Your task to perform on an android device: Go to wifi settings Image 0: 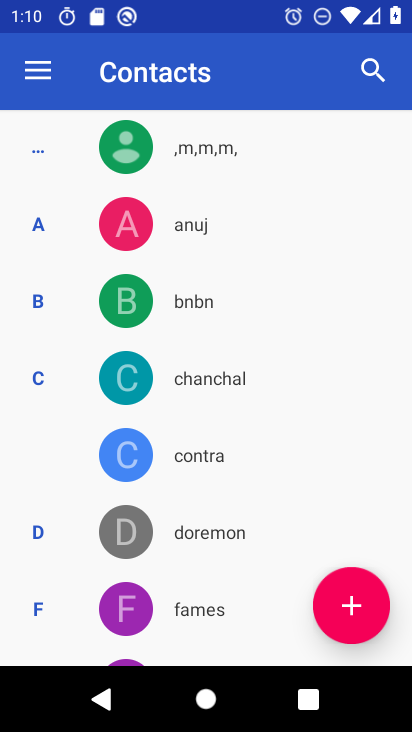
Step 0: press home button
Your task to perform on an android device: Go to wifi settings Image 1: 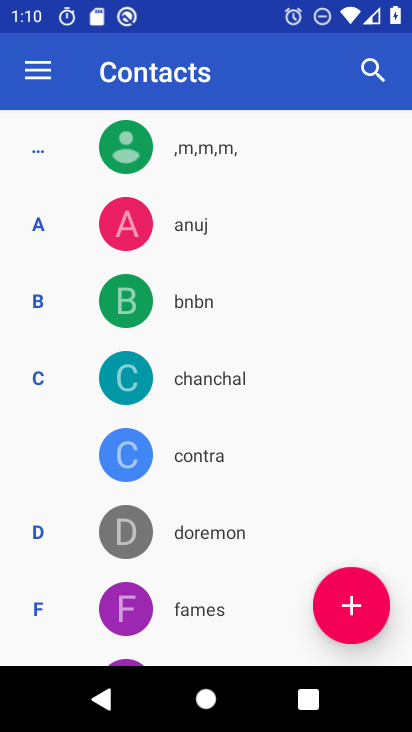
Step 1: press home button
Your task to perform on an android device: Go to wifi settings Image 2: 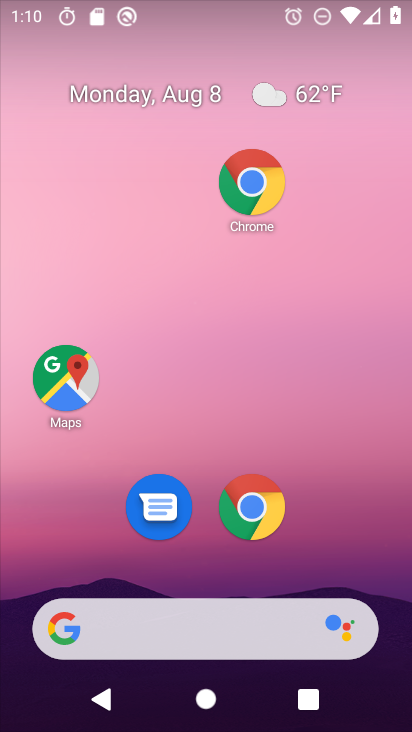
Step 2: drag from (350, 506) to (350, 45)
Your task to perform on an android device: Go to wifi settings Image 3: 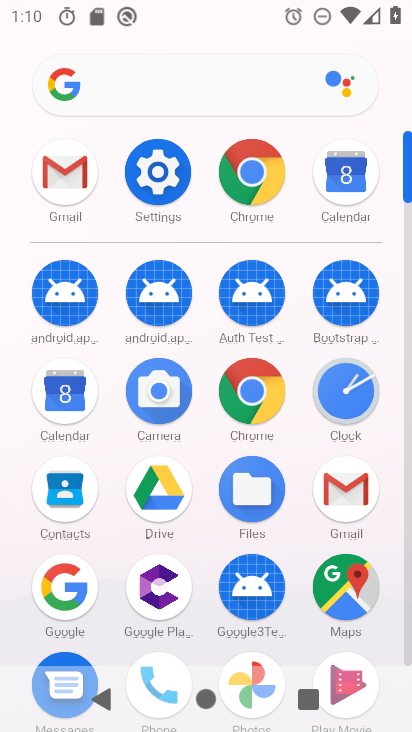
Step 3: click (170, 171)
Your task to perform on an android device: Go to wifi settings Image 4: 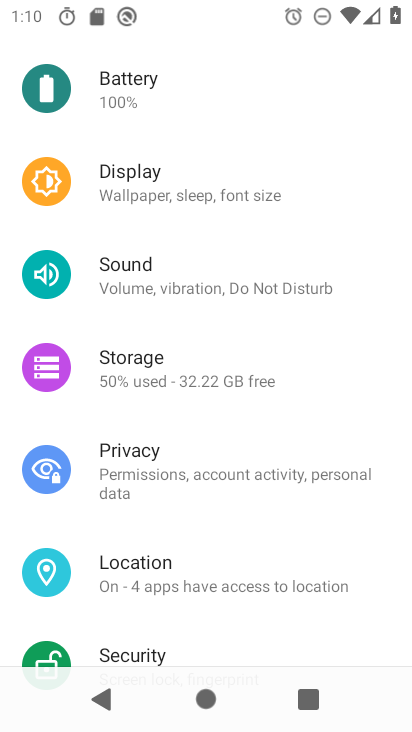
Step 4: drag from (231, 172) to (247, 642)
Your task to perform on an android device: Go to wifi settings Image 5: 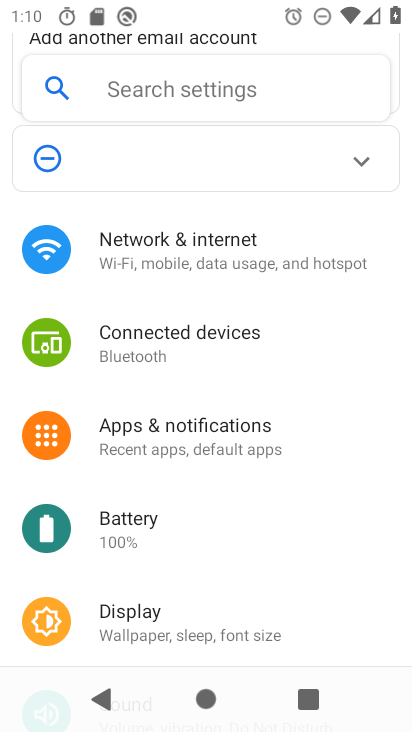
Step 5: click (172, 232)
Your task to perform on an android device: Go to wifi settings Image 6: 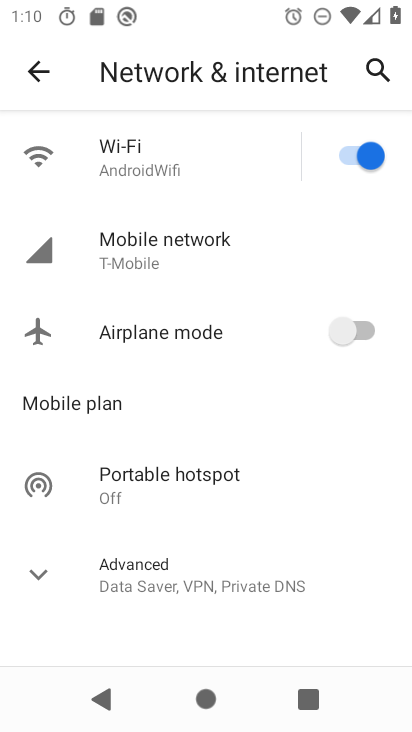
Step 6: click (184, 159)
Your task to perform on an android device: Go to wifi settings Image 7: 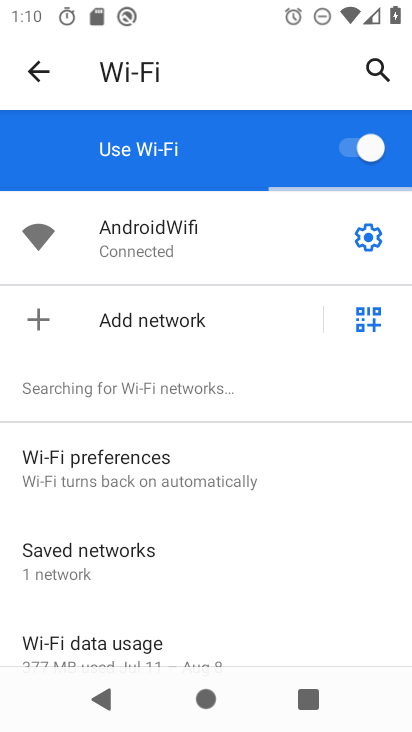
Step 7: click (366, 230)
Your task to perform on an android device: Go to wifi settings Image 8: 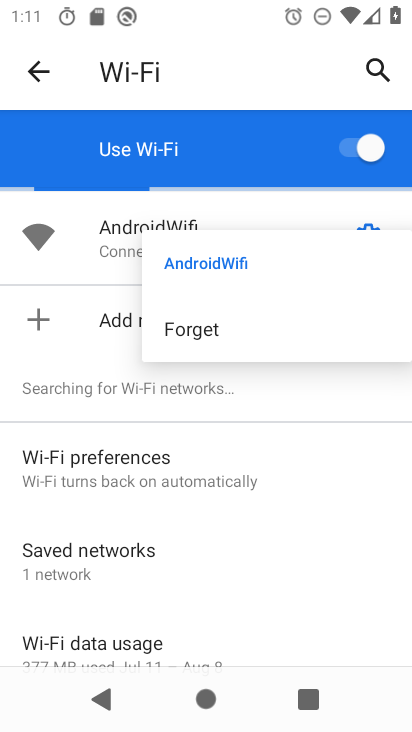
Step 8: click (370, 224)
Your task to perform on an android device: Go to wifi settings Image 9: 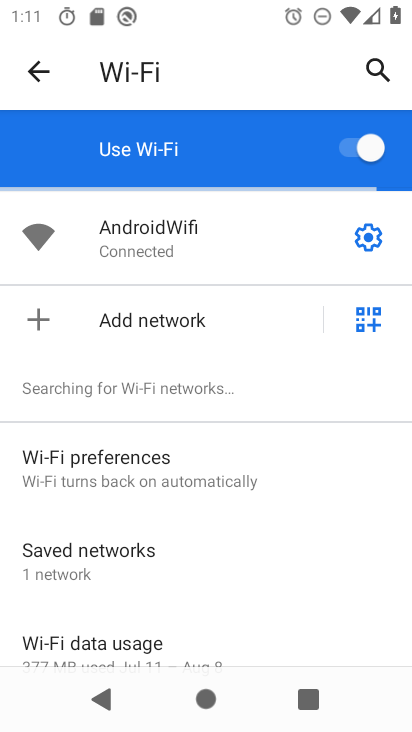
Step 9: click (368, 229)
Your task to perform on an android device: Go to wifi settings Image 10: 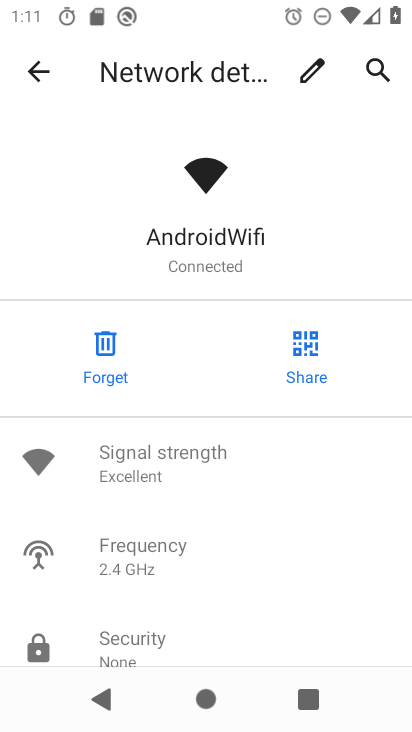
Step 10: task complete